Your task to perform on an android device: Open Maps and search for coffee Image 0: 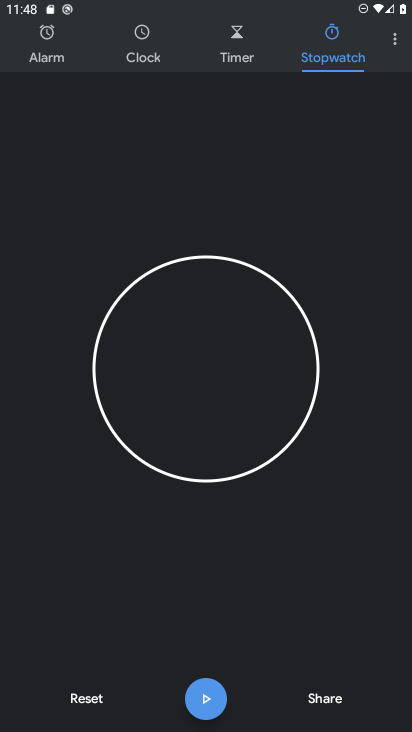
Step 0: press home button
Your task to perform on an android device: Open Maps and search for coffee Image 1: 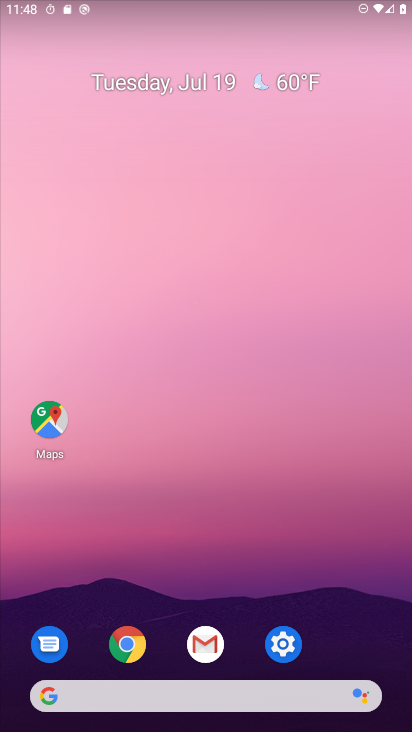
Step 1: click (48, 430)
Your task to perform on an android device: Open Maps and search for coffee Image 2: 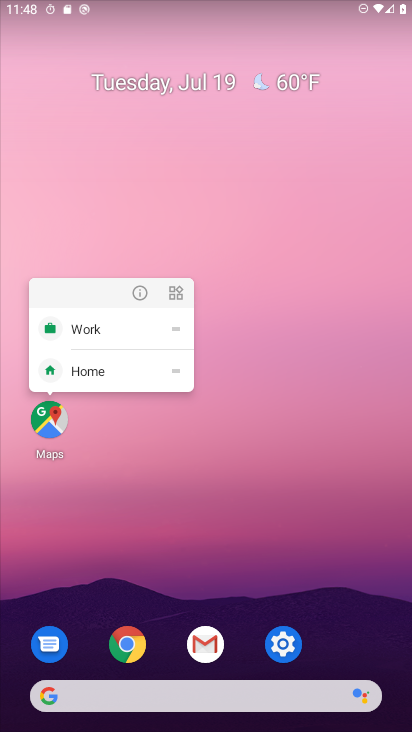
Step 2: click (46, 417)
Your task to perform on an android device: Open Maps and search for coffee Image 3: 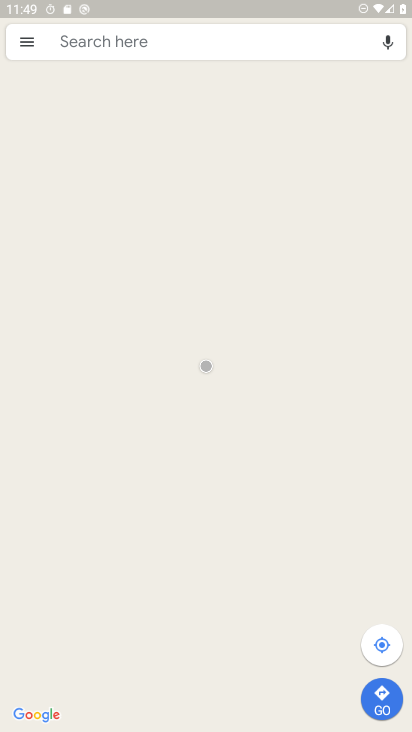
Step 3: click (78, 42)
Your task to perform on an android device: Open Maps and search for coffee Image 4: 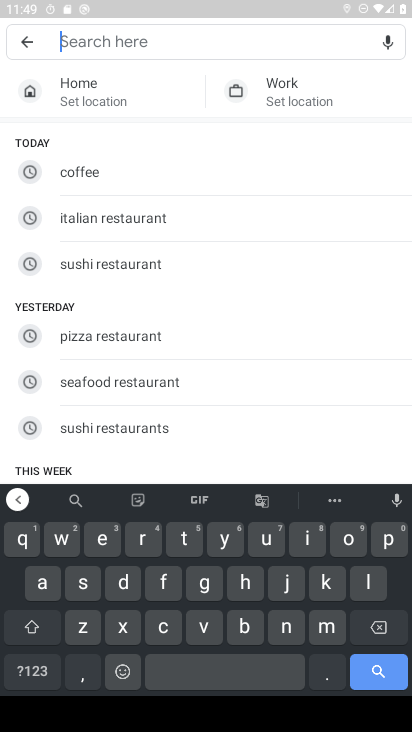
Step 4: click (106, 174)
Your task to perform on an android device: Open Maps and search for coffee Image 5: 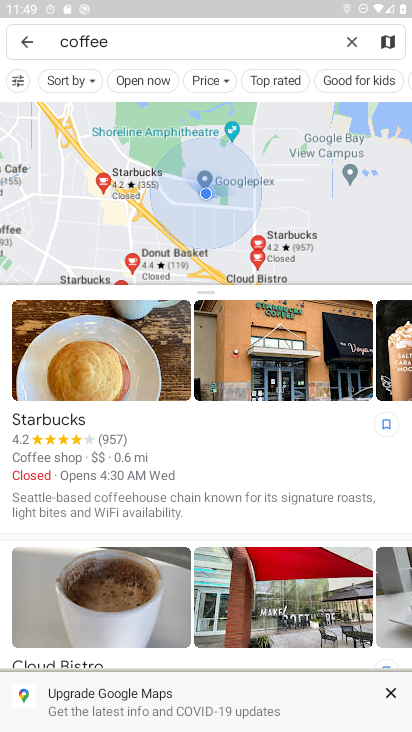
Step 5: task complete